Your task to perform on an android device: toggle javascript in the chrome app Image 0: 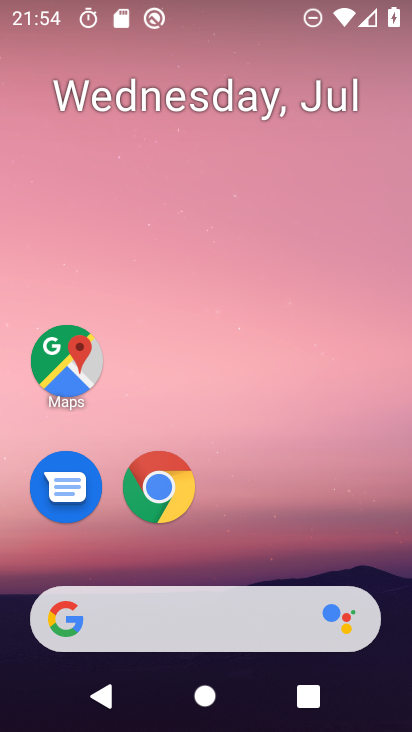
Step 0: drag from (372, 545) to (390, 173)
Your task to perform on an android device: toggle javascript in the chrome app Image 1: 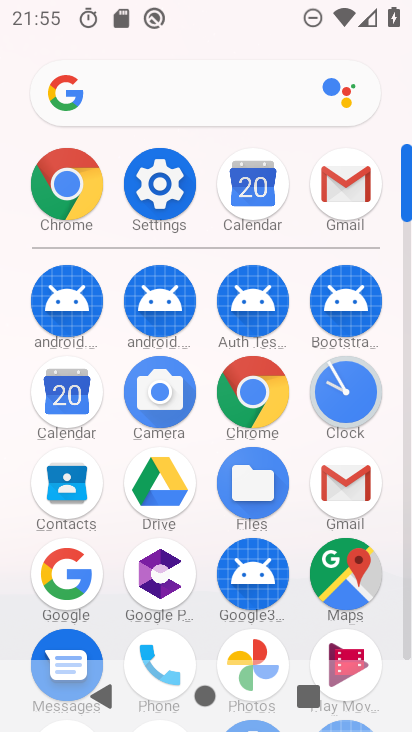
Step 1: click (264, 400)
Your task to perform on an android device: toggle javascript in the chrome app Image 2: 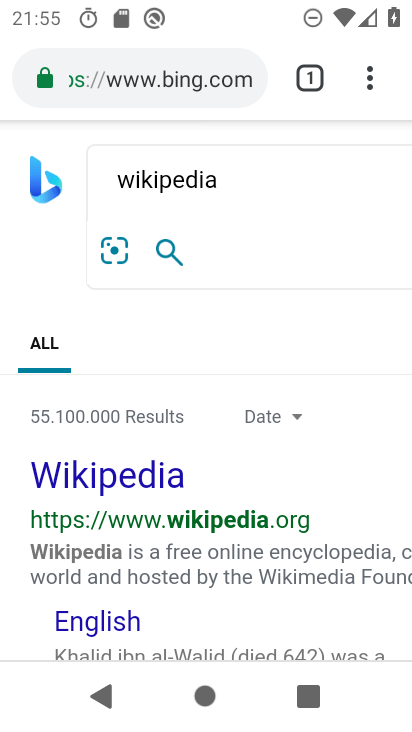
Step 2: click (367, 86)
Your task to perform on an android device: toggle javascript in the chrome app Image 3: 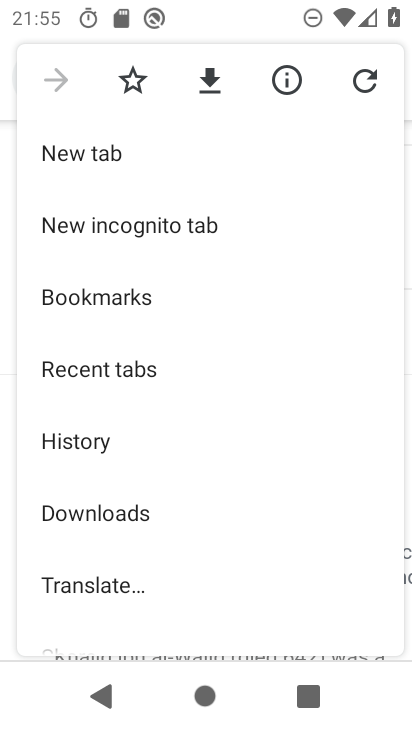
Step 3: drag from (331, 370) to (330, 275)
Your task to perform on an android device: toggle javascript in the chrome app Image 4: 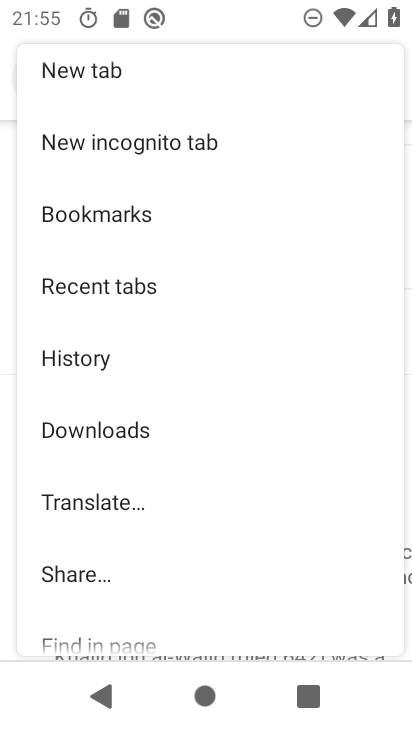
Step 4: drag from (329, 530) to (318, 402)
Your task to perform on an android device: toggle javascript in the chrome app Image 5: 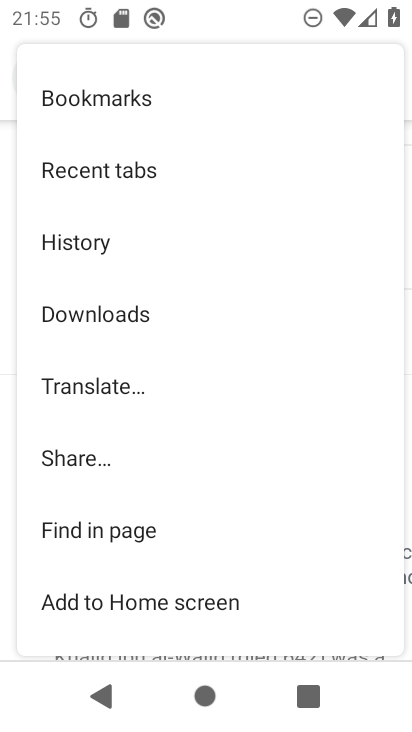
Step 5: drag from (316, 496) to (309, 416)
Your task to perform on an android device: toggle javascript in the chrome app Image 6: 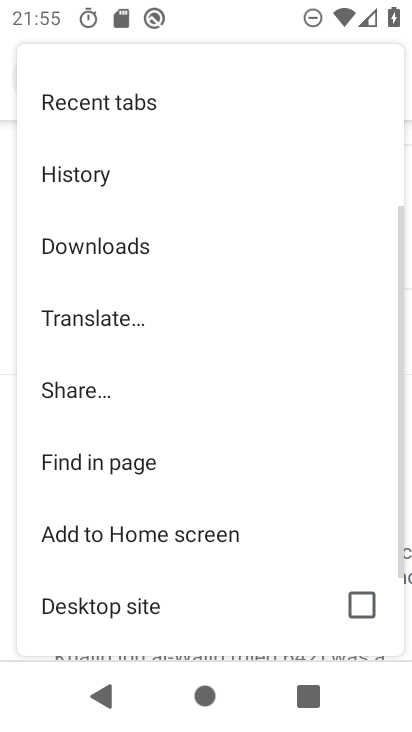
Step 6: drag from (314, 511) to (314, 435)
Your task to perform on an android device: toggle javascript in the chrome app Image 7: 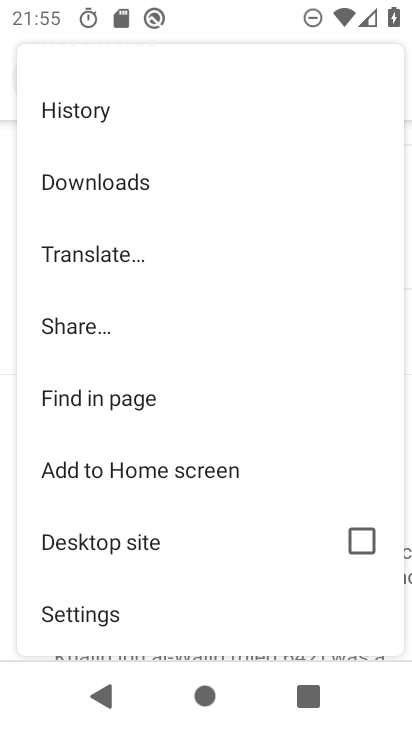
Step 7: click (170, 604)
Your task to perform on an android device: toggle javascript in the chrome app Image 8: 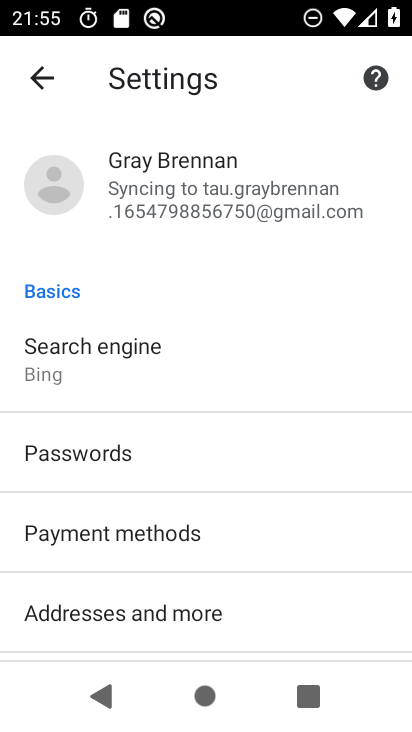
Step 8: drag from (303, 520) to (330, 428)
Your task to perform on an android device: toggle javascript in the chrome app Image 9: 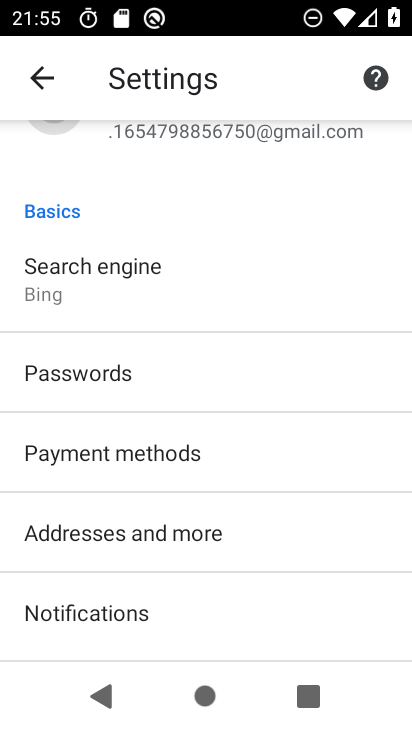
Step 9: drag from (332, 519) to (356, 425)
Your task to perform on an android device: toggle javascript in the chrome app Image 10: 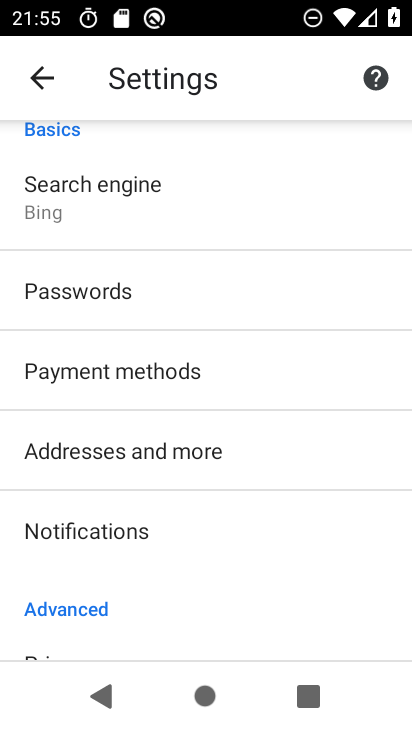
Step 10: drag from (344, 547) to (342, 449)
Your task to perform on an android device: toggle javascript in the chrome app Image 11: 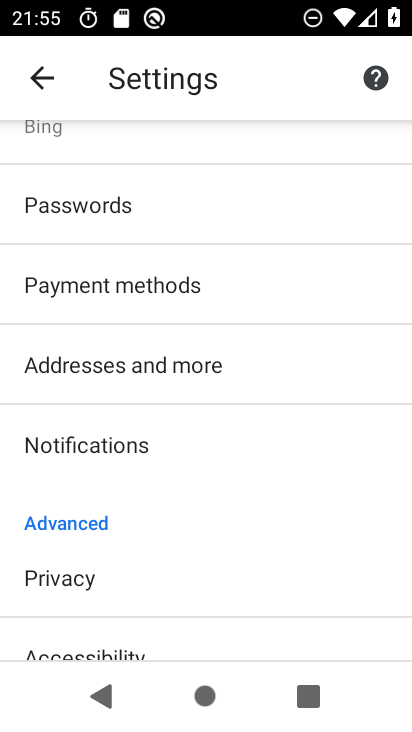
Step 11: drag from (307, 561) to (324, 469)
Your task to perform on an android device: toggle javascript in the chrome app Image 12: 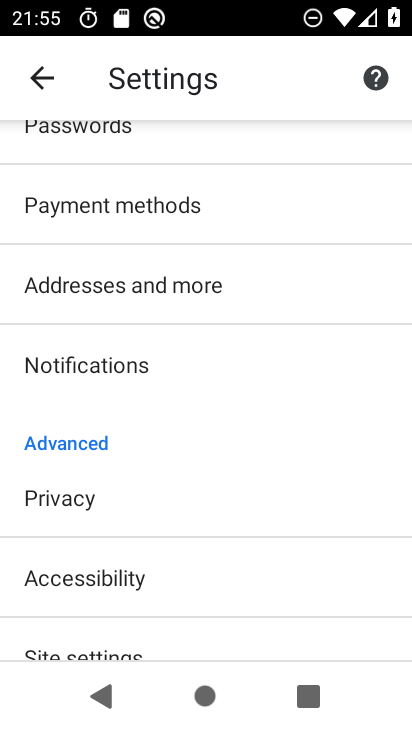
Step 12: drag from (335, 541) to (349, 428)
Your task to perform on an android device: toggle javascript in the chrome app Image 13: 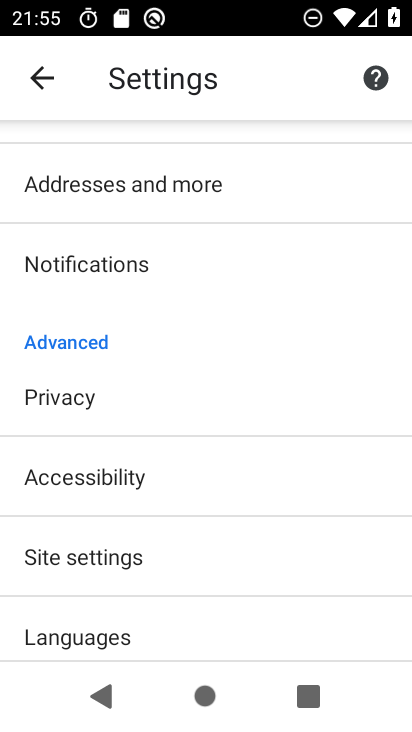
Step 13: drag from (355, 567) to (368, 433)
Your task to perform on an android device: toggle javascript in the chrome app Image 14: 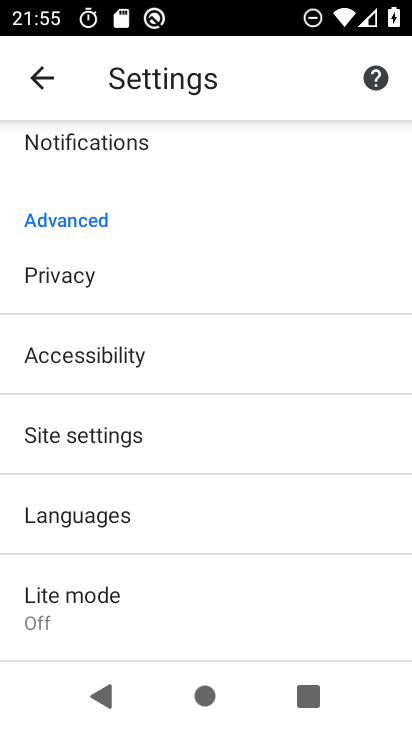
Step 14: drag from (324, 551) to (324, 395)
Your task to perform on an android device: toggle javascript in the chrome app Image 15: 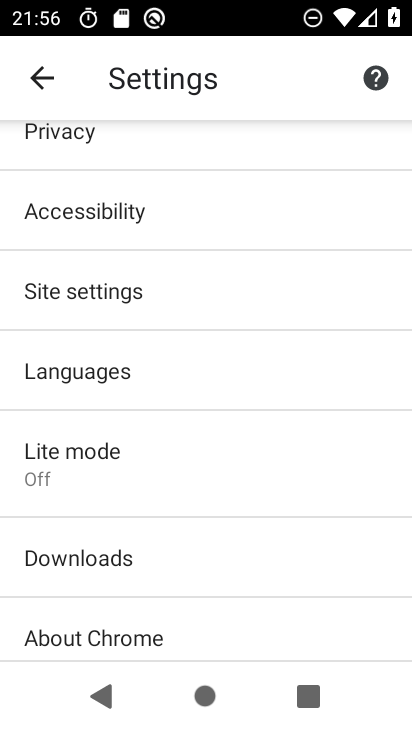
Step 15: drag from (306, 540) to (306, 440)
Your task to perform on an android device: toggle javascript in the chrome app Image 16: 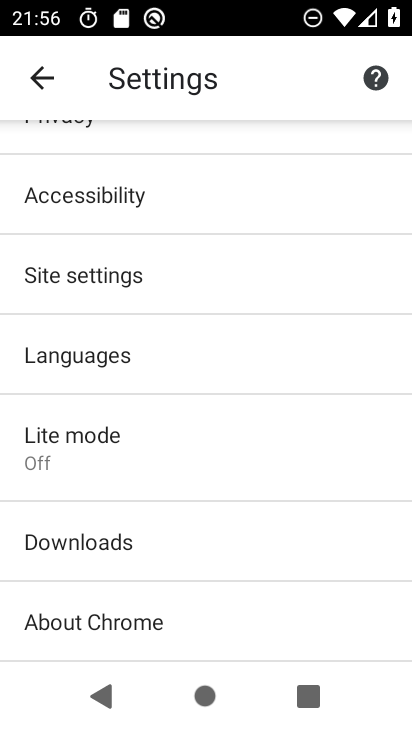
Step 16: click (204, 280)
Your task to perform on an android device: toggle javascript in the chrome app Image 17: 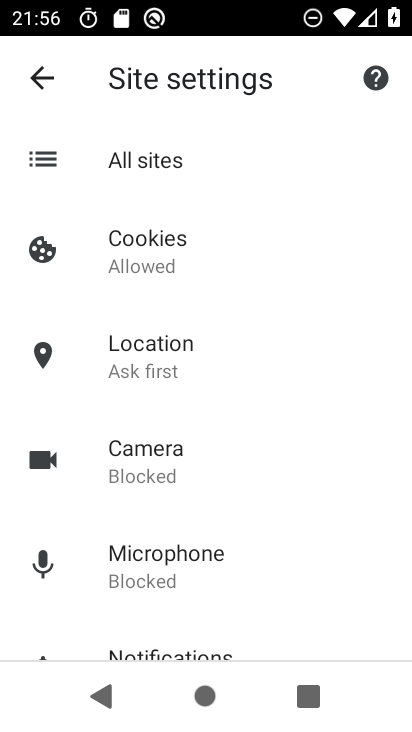
Step 17: drag from (299, 541) to (309, 429)
Your task to perform on an android device: toggle javascript in the chrome app Image 18: 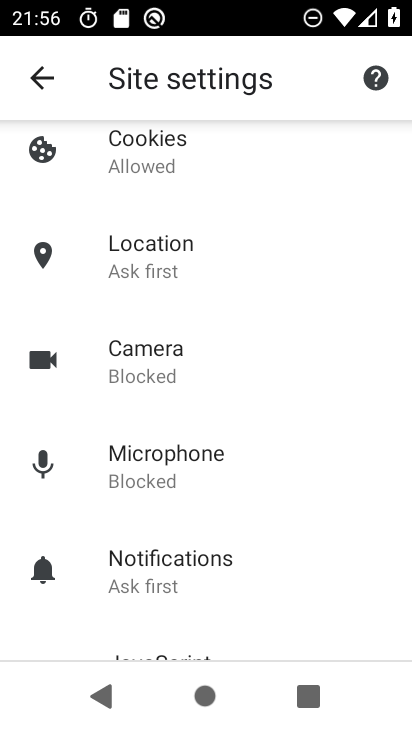
Step 18: drag from (321, 538) to (326, 451)
Your task to perform on an android device: toggle javascript in the chrome app Image 19: 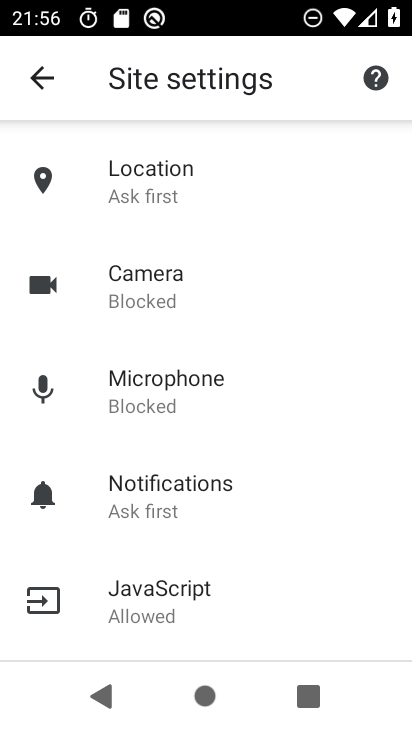
Step 19: drag from (318, 572) to (321, 463)
Your task to perform on an android device: toggle javascript in the chrome app Image 20: 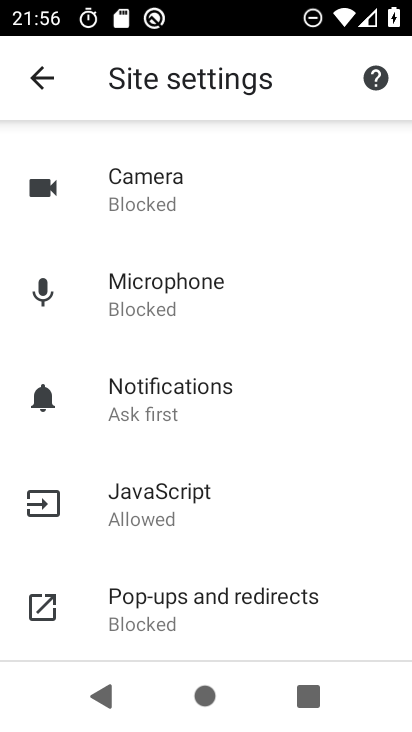
Step 20: click (187, 511)
Your task to perform on an android device: toggle javascript in the chrome app Image 21: 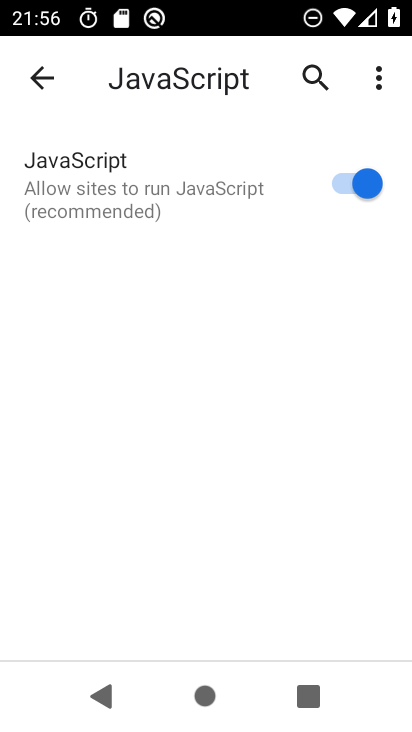
Step 21: click (351, 194)
Your task to perform on an android device: toggle javascript in the chrome app Image 22: 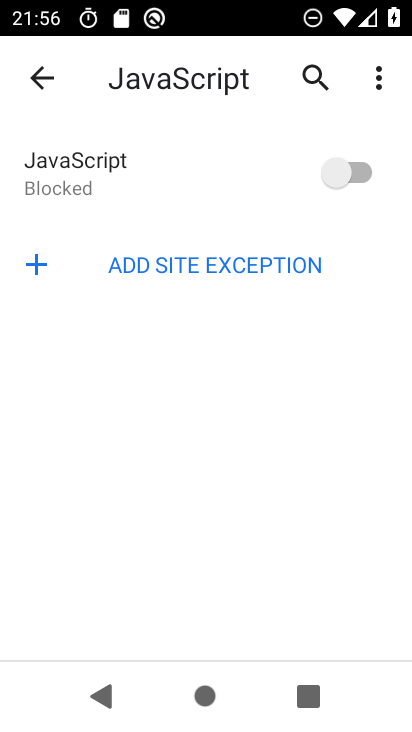
Step 22: task complete